Your task to perform on an android device: Open the calendar and show me this week's events Image 0: 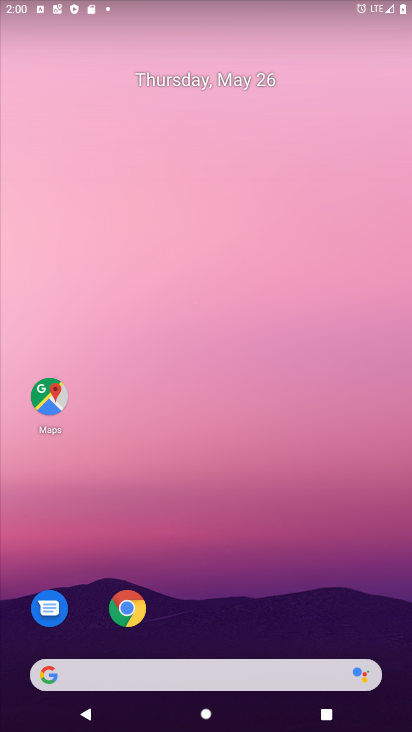
Step 0: drag from (402, 626) to (286, 1)
Your task to perform on an android device: Open the calendar and show me this week's events Image 1: 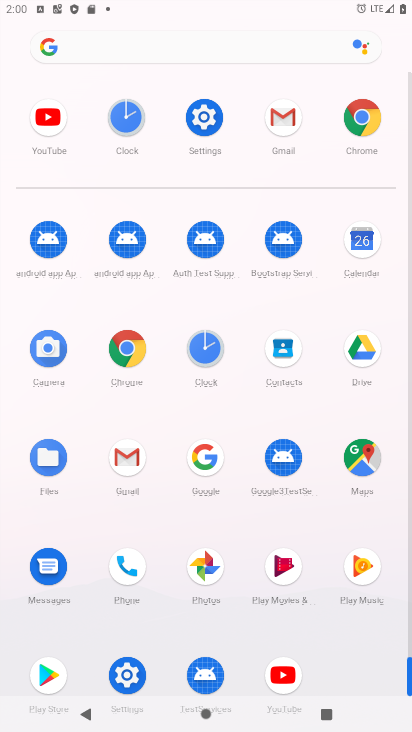
Step 1: click (358, 237)
Your task to perform on an android device: Open the calendar and show me this week's events Image 2: 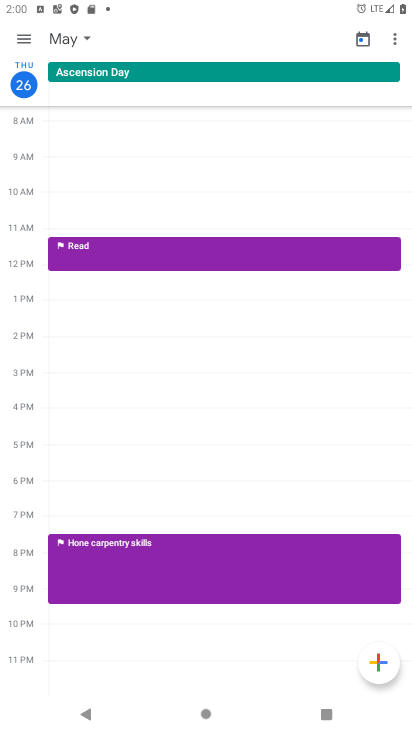
Step 2: click (24, 37)
Your task to perform on an android device: Open the calendar and show me this week's events Image 3: 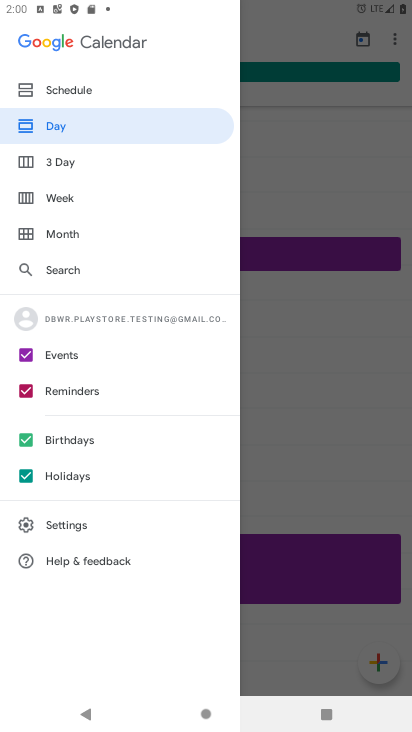
Step 3: click (59, 195)
Your task to perform on an android device: Open the calendar and show me this week's events Image 4: 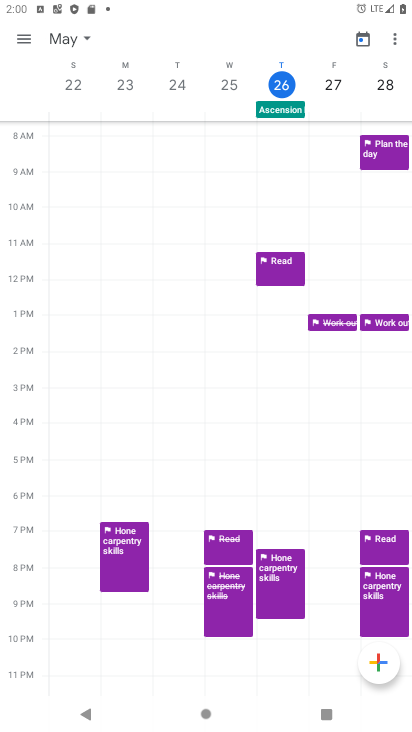
Step 4: task complete